Your task to perform on an android device: check data usage Image 0: 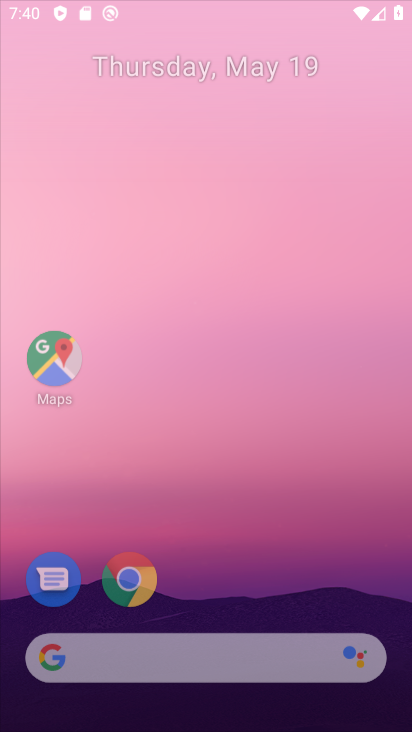
Step 0: click (43, 366)
Your task to perform on an android device: check data usage Image 1: 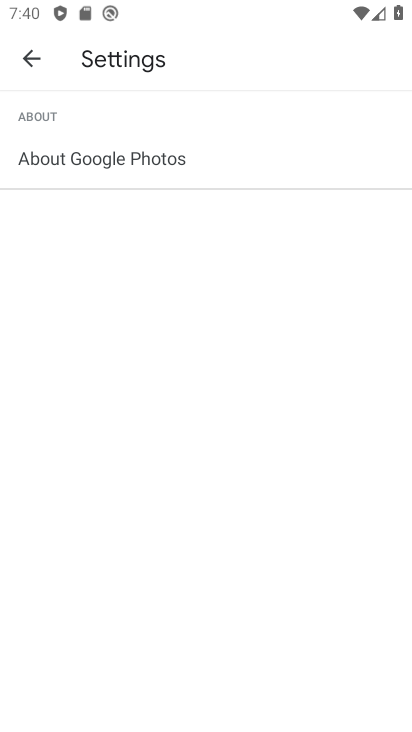
Step 1: click (12, 54)
Your task to perform on an android device: check data usage Image 2: 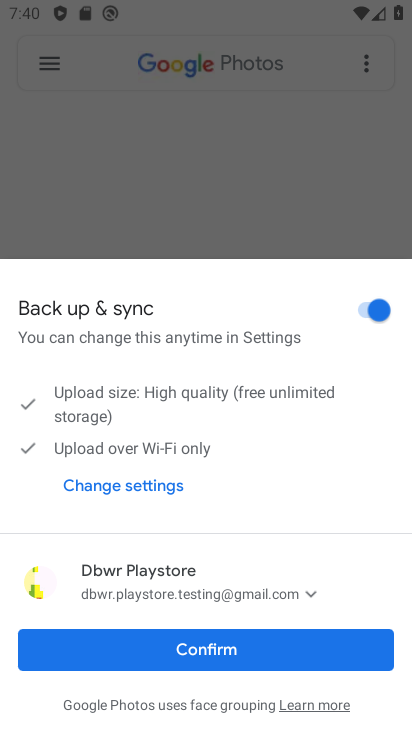
Step 2: click (286, 634)
Your task to perform on an android device: check data usage Image 3: 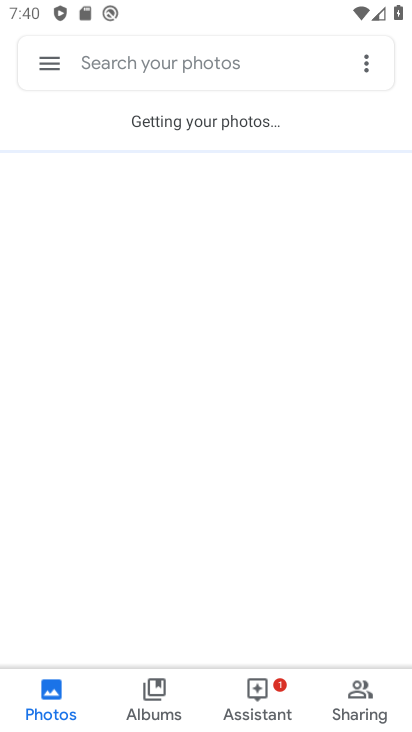
Step 3: press home button
Your task to perform on an android device: check data usage Image 4: 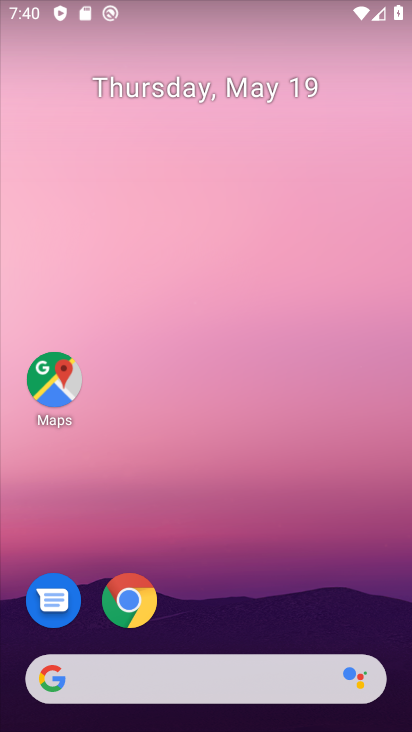
Step 4: click (62, 373)
Your task to perform on an android device: check data usage Image 5: 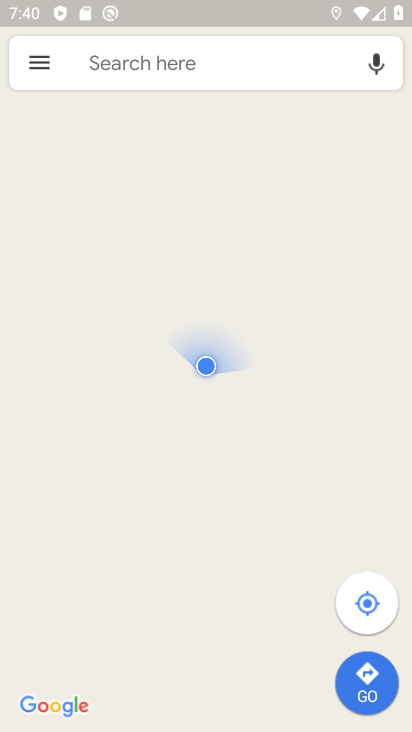
Step 5: click (31, 66)
Your task to perform on an android device: check data usage Image 6: 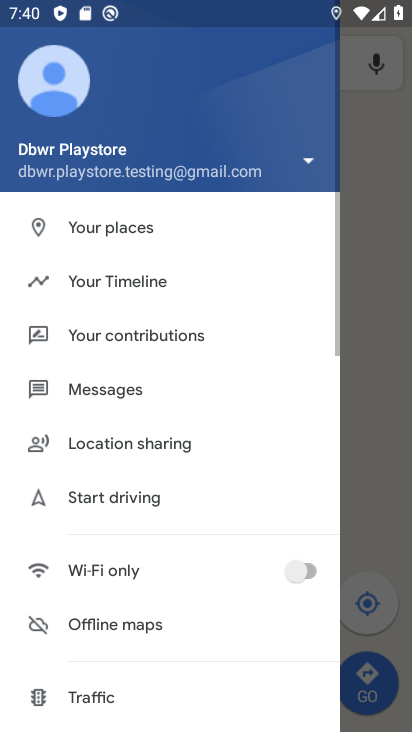
Step 6: click (117, 284)
Your task to perform on an android device: check data usage Image 7: 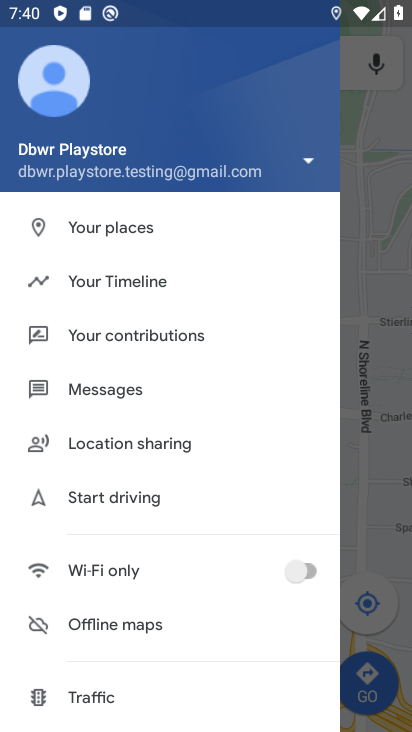
Step 7: task complete